Your task to perform on an android device: uninstall "DoorDash - Dasher" Image 0: 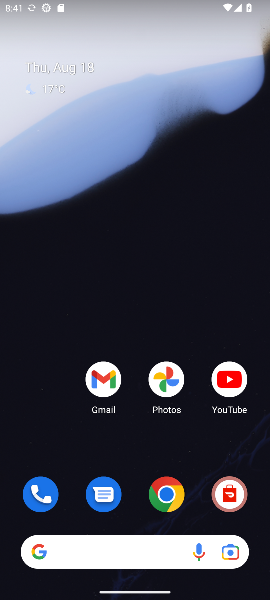
Step 0: drag from (202, 483) to (221, 71)
Your task to perform on an android device: uninstall "DoorDash - Dasher" Image 1: 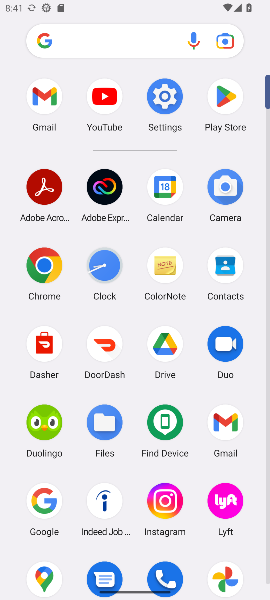
Step 1: drag from (191, 507) to (190, 282)
Your task to perform on an android device: uninstall "DoorDash - Dasher" Image 2: 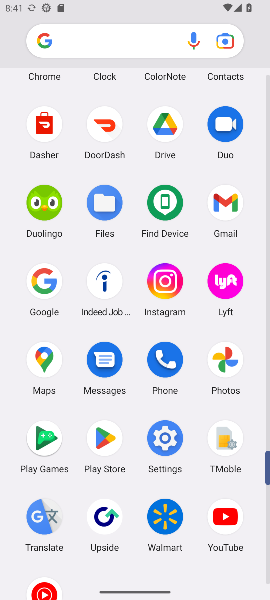
Step 2: click (103, 440)
Your task to perform on an android device: uninstall "DoorDash - Dasher" Image 3: 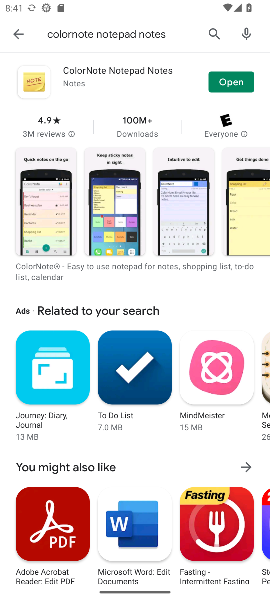
Step 3: click (213, 28)
Your task to perform on an android device: uninstall "DoorDash - Dasher" Image 4: 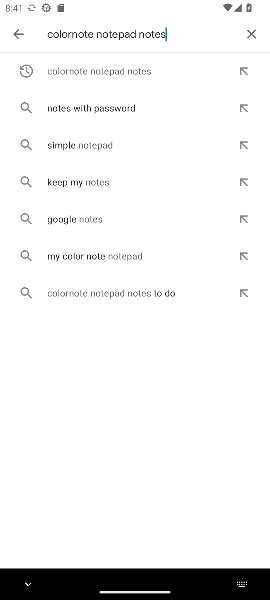
Step 4: click (252, 32)
Your task to perform on an android device: uninstall "DoorDash - Dasher" Image 5: 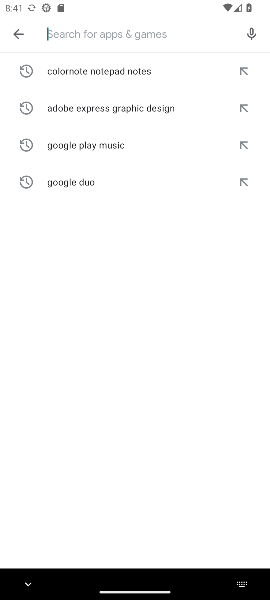
Step 5: type "DoorDash - Dasher"
Your task to perform on an android device: uninstall "DoorDash - Dasher" Image 6: 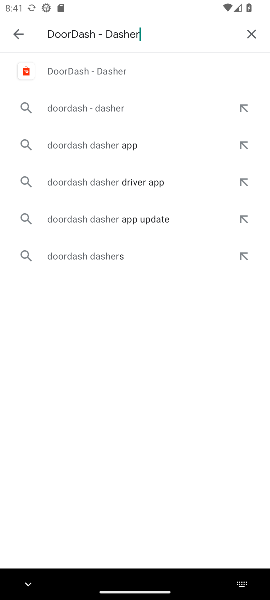
Step 6: click (91, 73)
Your task to perform on an android device: uninstall "DoorDash - Dasher" Image 7: 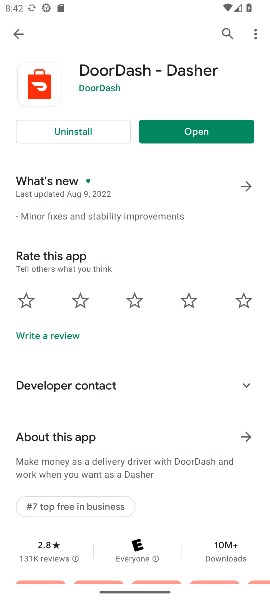
Step 7: click (71, 131)
Your task to perform on an android device: uninstall "DoorDash - Dasher" Image 8: 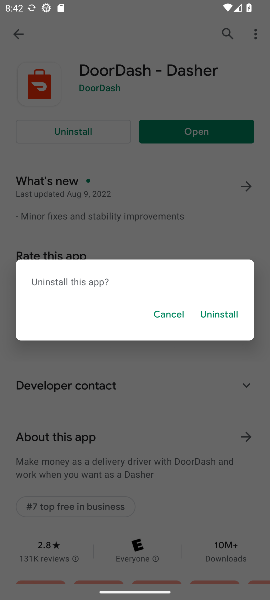
Step 8: click (221, 315)
Your task to perform on an android device: uninstall "DoorDash - Dasher" Image 9: 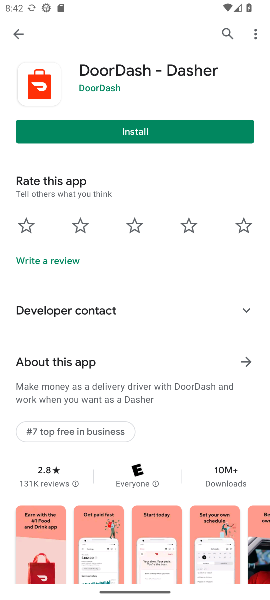
Step 9: task complete